Your task to perform on an android device: read, delete, or share a saved page in the chrome app Image 0: 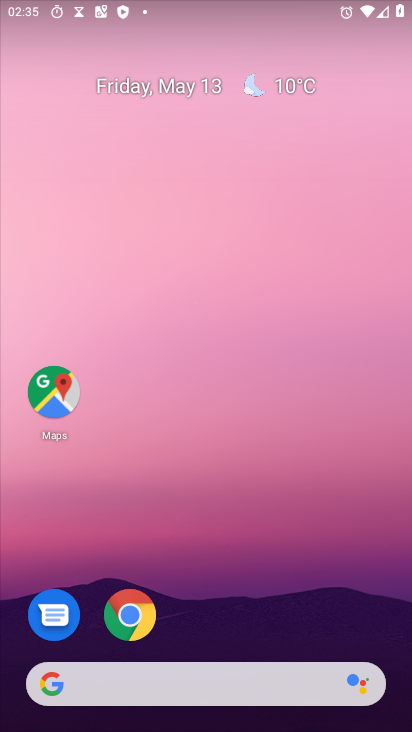
Step 0: click (138, 609)
Your task to perform on an android device: read, delete, or share a saved page in the chrome app Image 1: 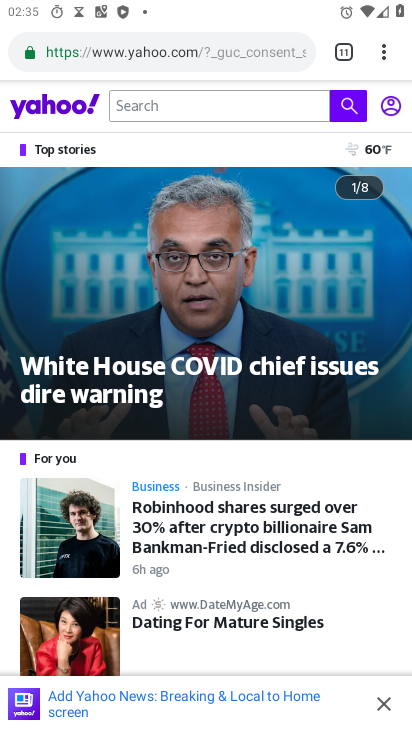
Step 1: click (382, 50)
Your task to perform on an android device: read, delete, or share a saved page in the chrome app Image 2: 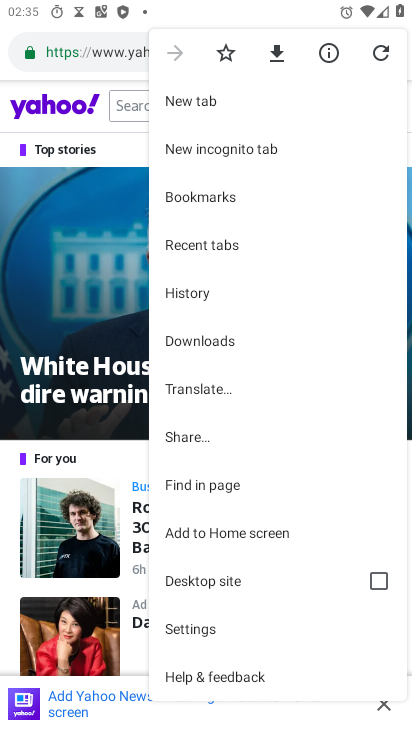
Step 2: click (218, 198)
Your task to perform on an android device: read, delete, or share a saved page in the chrome app Image 3: 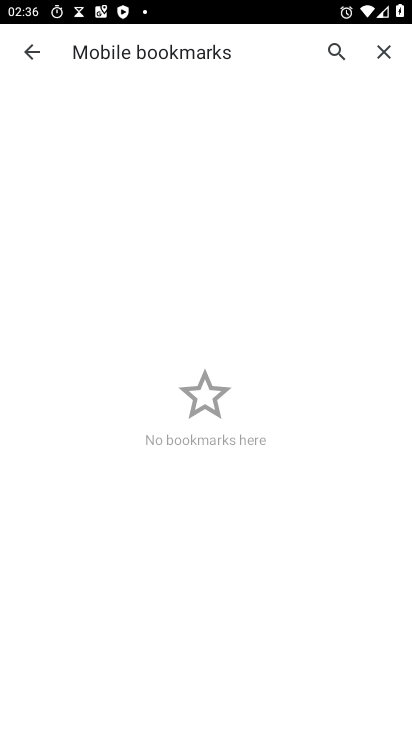
Step 3: task complete